Your task to perform on an android device: turn off sleep mode Image 0: 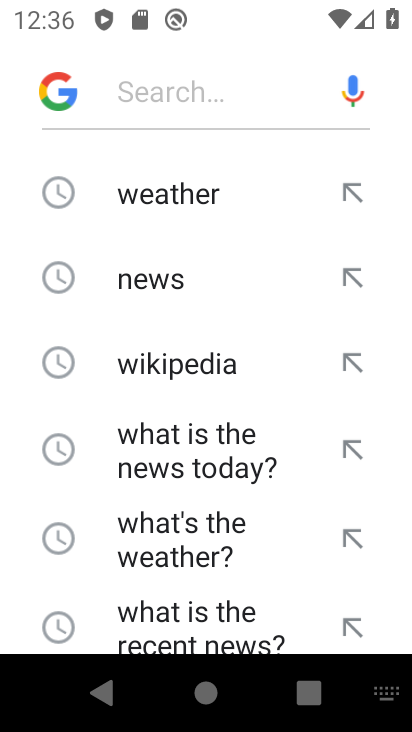
Step 0: press home button
Your task to perform on an android device: turn off sleep mode Image 1: 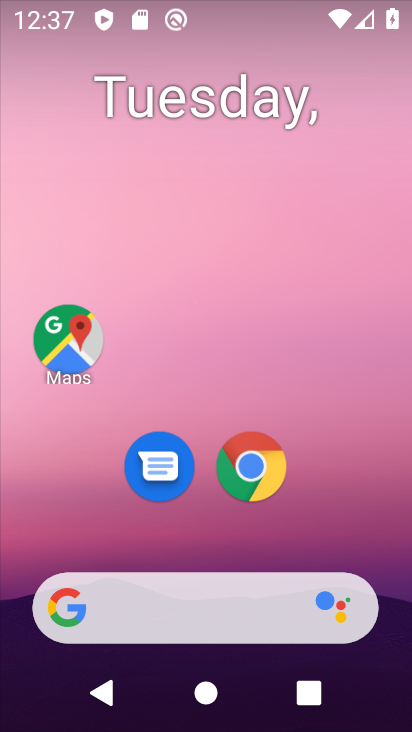
Step 1: drag from (377, 541) to (377, 202)
Your task to perform on an android device: turn off sleep mode Image 2: 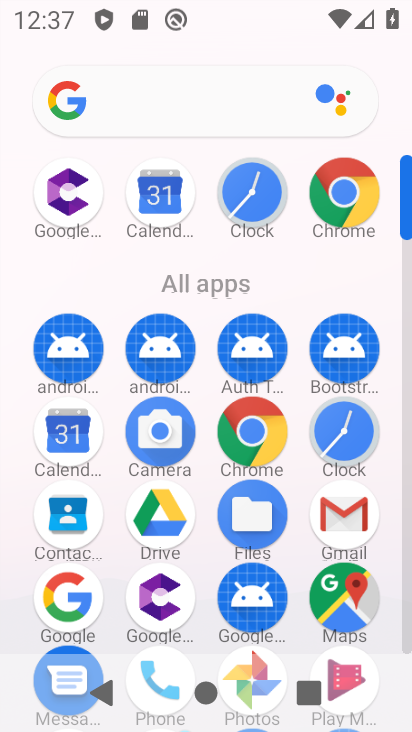
Step 2: drag from (292, 480) to (288, 234)
Your task to perform on an android device: turn off sleep mode Image 3: 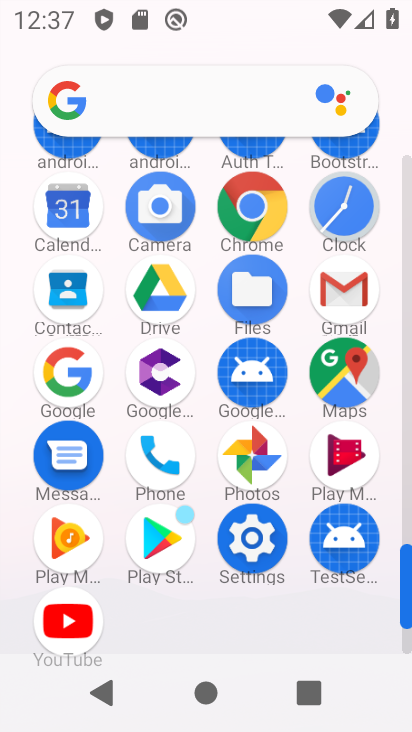
Step 3: click (253, 556)
Your task to perform on an android device: turn off sleep mode Image 4: 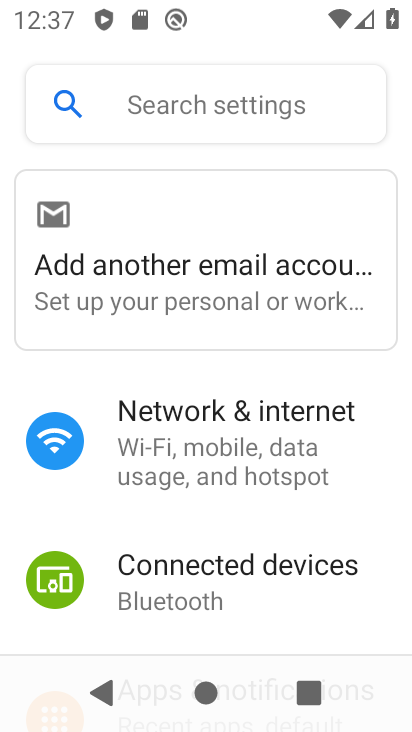
Step 4: drag from (369, 567) to (375, 483)
Your task to perform on an android device: turn off sleep mode Image 5: 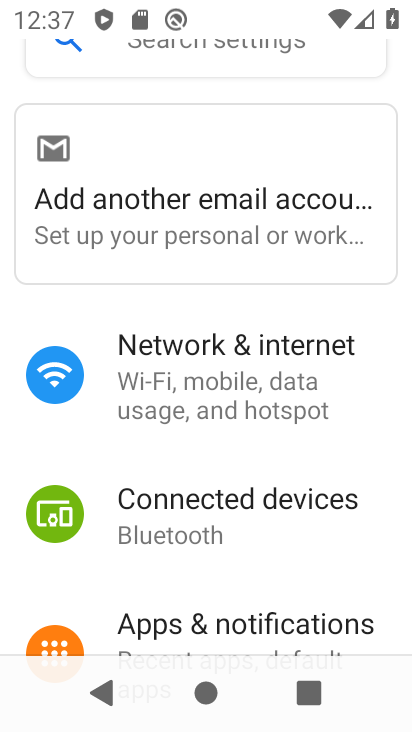
Step 5: drag from (355, 555) to (356, 479)
Your task to perform on an android device: turn off sleep mode Image 6: 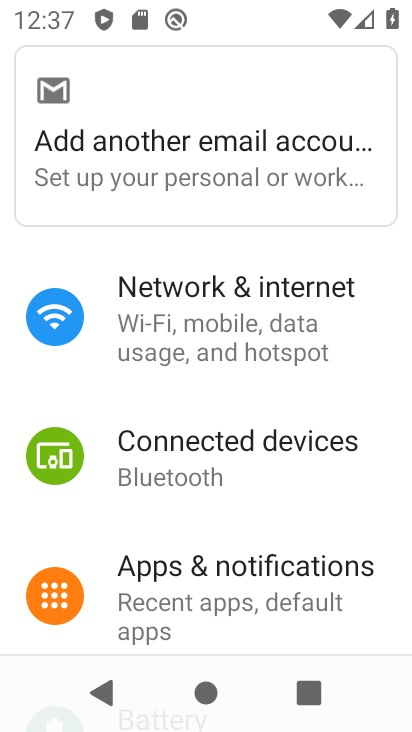
Step 6: drag from (350, 597) to (346, 508)
Your task to perform on an android device: turn off sleep mode Image 7: 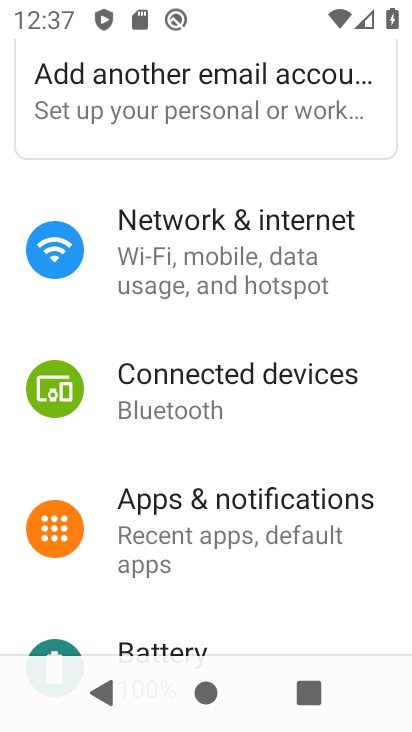
Step 7: drag from (339, 589) to (349, 507)
Your task to perform on an android device: turn off sleep mode Image 8: 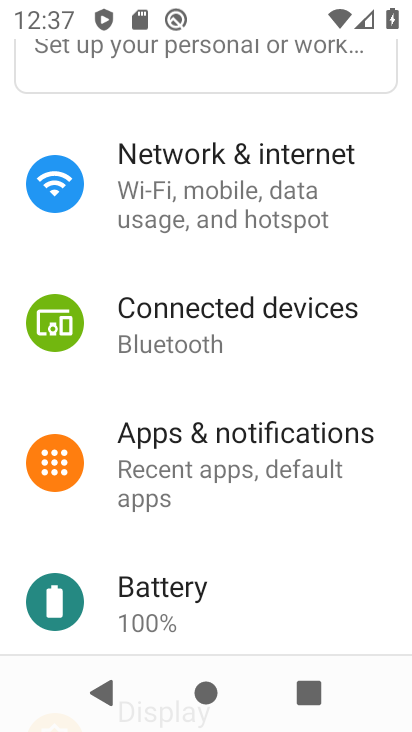
Step 8: drag from (346, 567) to (351, 480)
Your task to perform on an android device: turn off sleep mode Image 9: 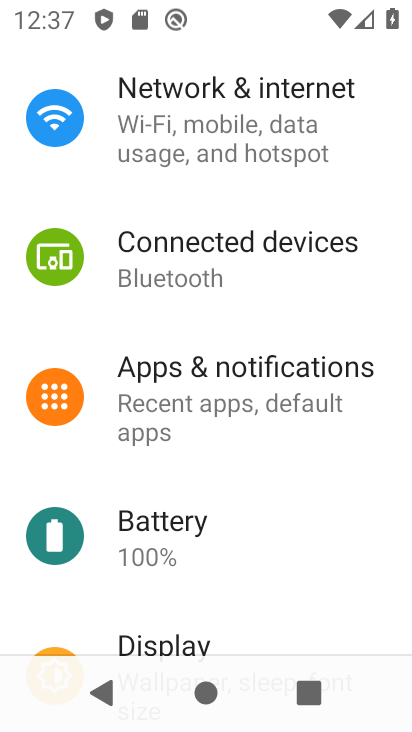
Step 9: drag from (348, 568) to (354, 486)
Your task to perform on an android device: turn off sleep mode Image 10: 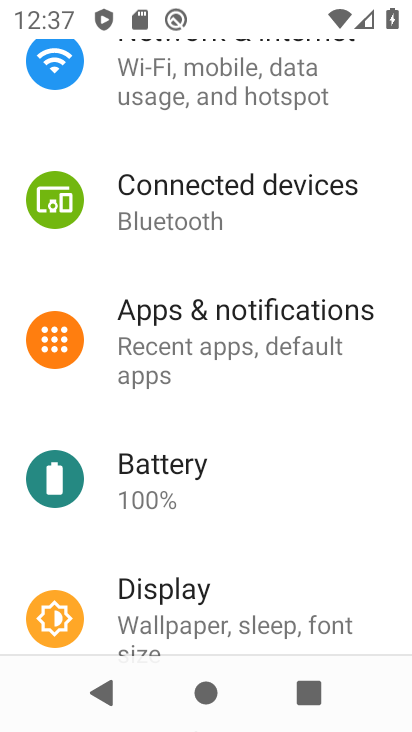
Step 10: drag from (352, 560) to (358, 466)
Your task to perform on an android device: turn off sleep mode Image 11: 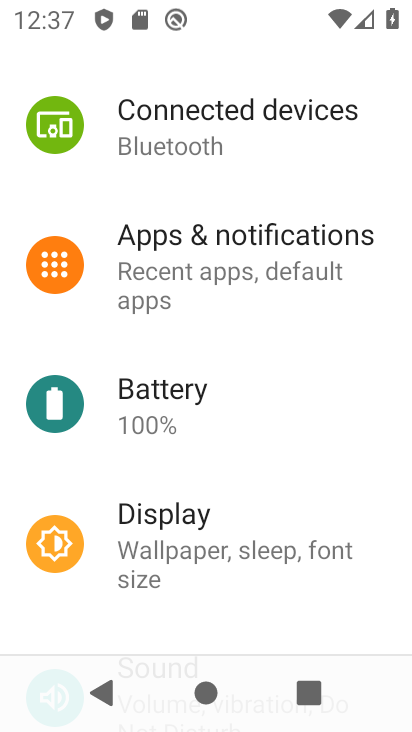
Step 11: drag from (372, 594) to (373, 476)
Your task to perform on an android device: turn off sleep mode Image 12: 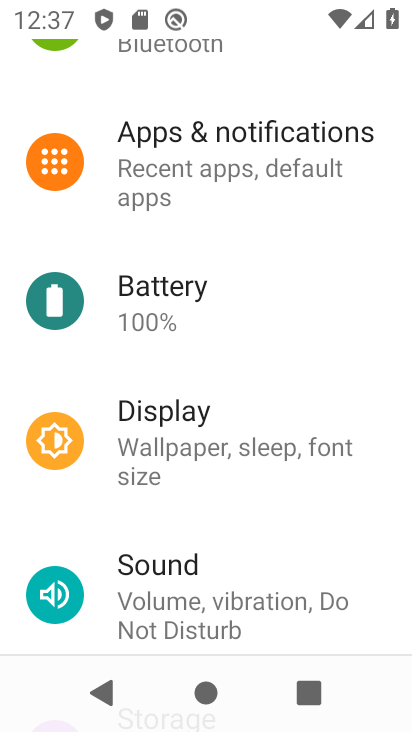
Step 12: drag from (370, 560) to (370, 470)
Your task to perform on an android device: turn off sleep mode Image 13: 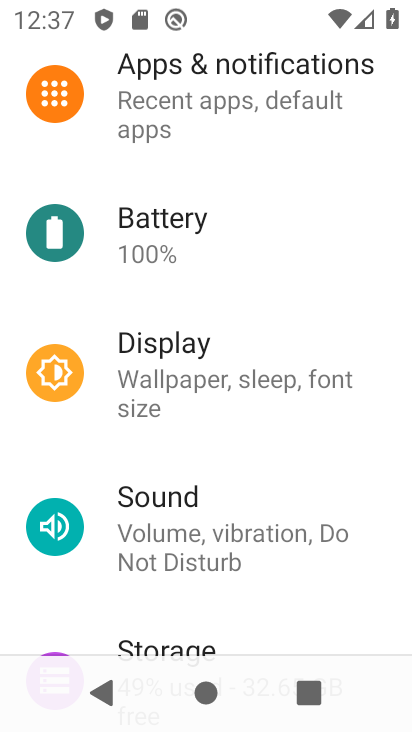
Step 13: click (319, 391)
Your task to perform on an android device: turn off sleep mode Image 14: 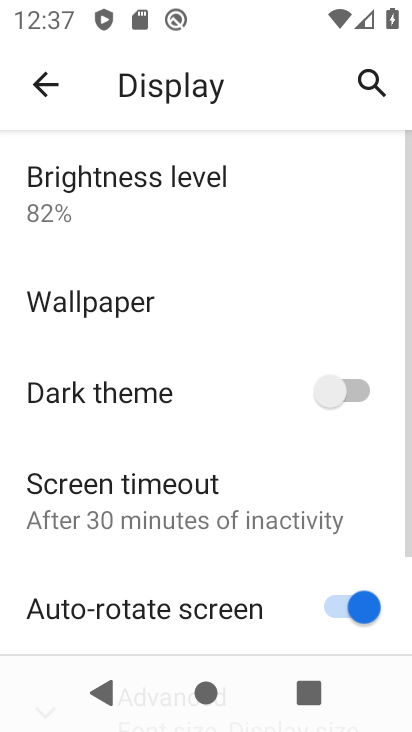
Step 14: drag from (296, 463) to (295, 377)
Your task to perform on an android device: turn off sleep mode Image 15: 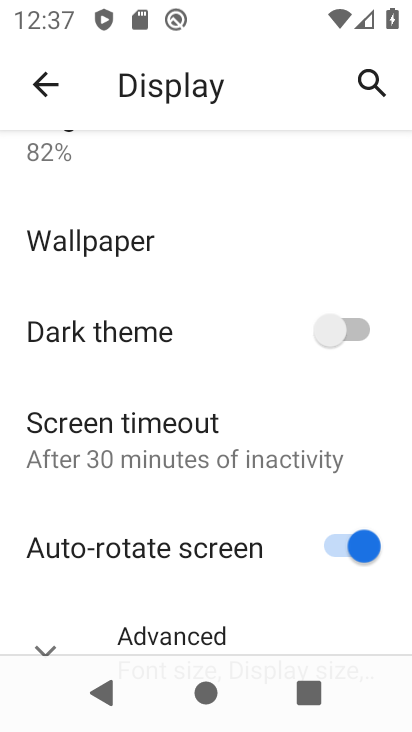
Step 15: drag from (292, 562) to (295, 449)
Your task to perform on an android device: turn off sleep mode Image 16: 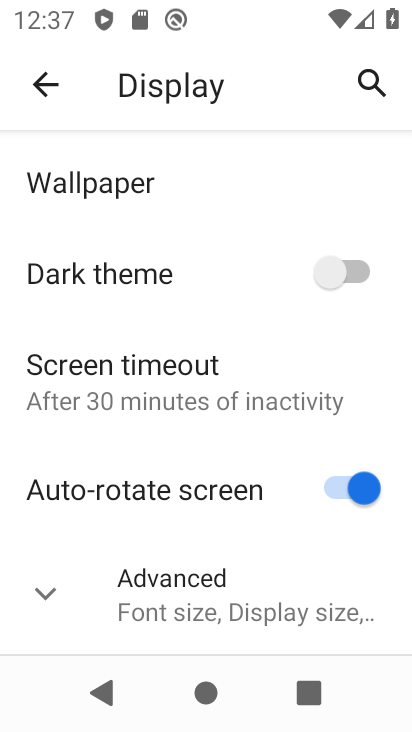
Step 16: click (290, 606)
Your task to perform on an android device: turn off sleep mode Image 17: 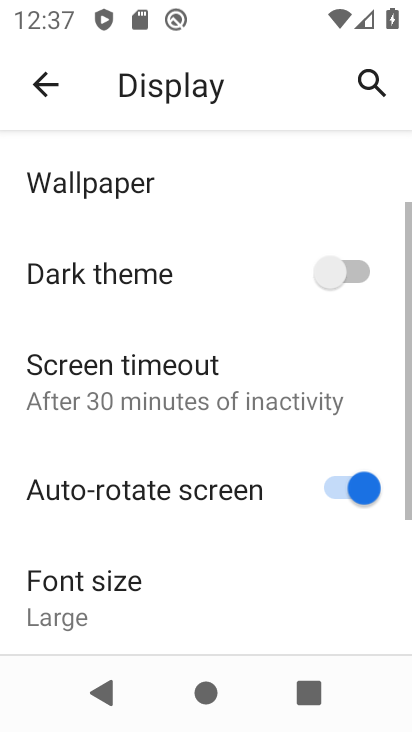
Step 17: task complete